Your task to perform on an android device: Open battery settings Image 0: 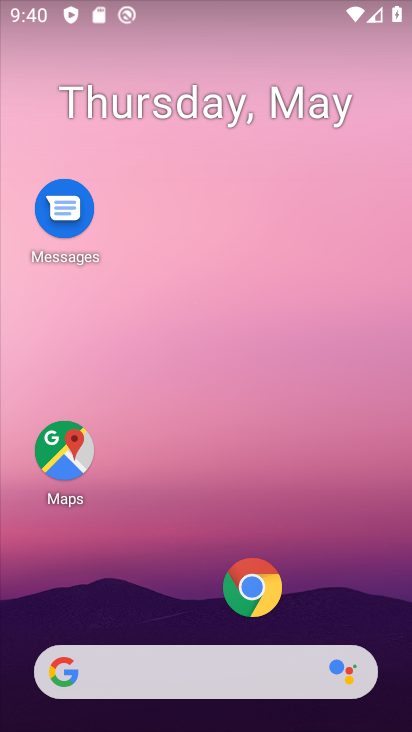
Step 0: drag from (192, 632) to (196, 114)
Your task to perform on an android device: Open battery settings Image 1: 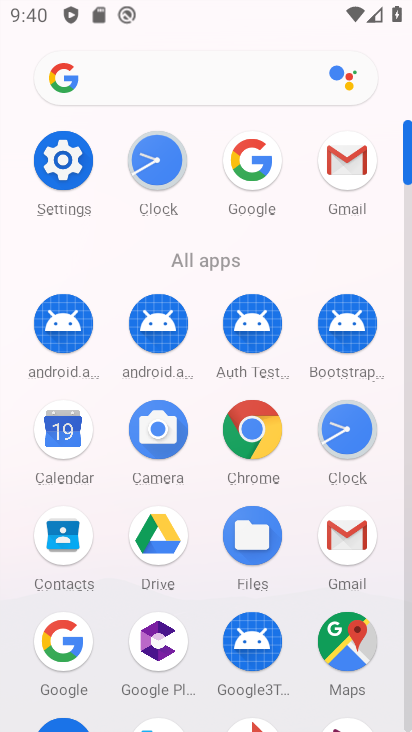
Step 1: click (66, 147)
Your task to perform on an android device: Open battery settings Image 2: 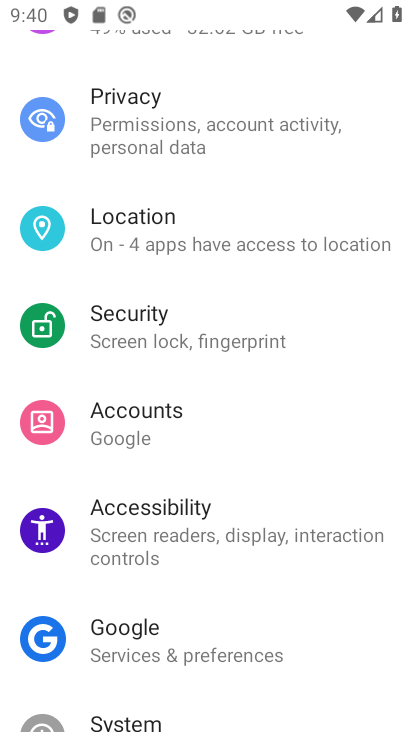
Step 2: drag from (133, 86) to (139, 529)
Your task to perform on an android device: Open battery settings Image 3: 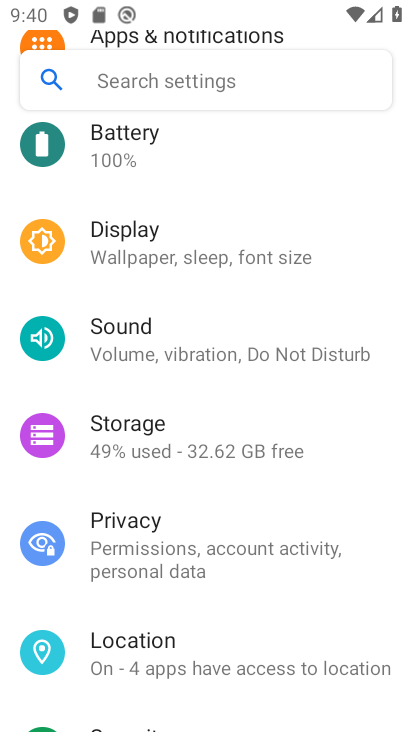
Step 3: click (130, 157)
Your task to perform on an android device: Open battery settings Image 4: 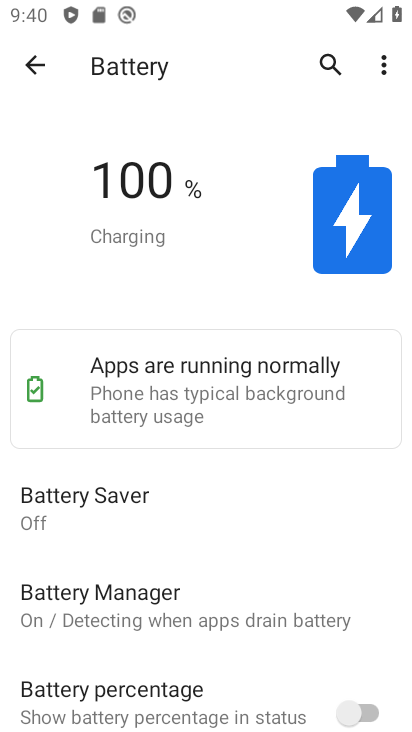
Step 4: task complete